Your task to perform on an android device: read, delete, or share a saved page in the chrome app Image 0: 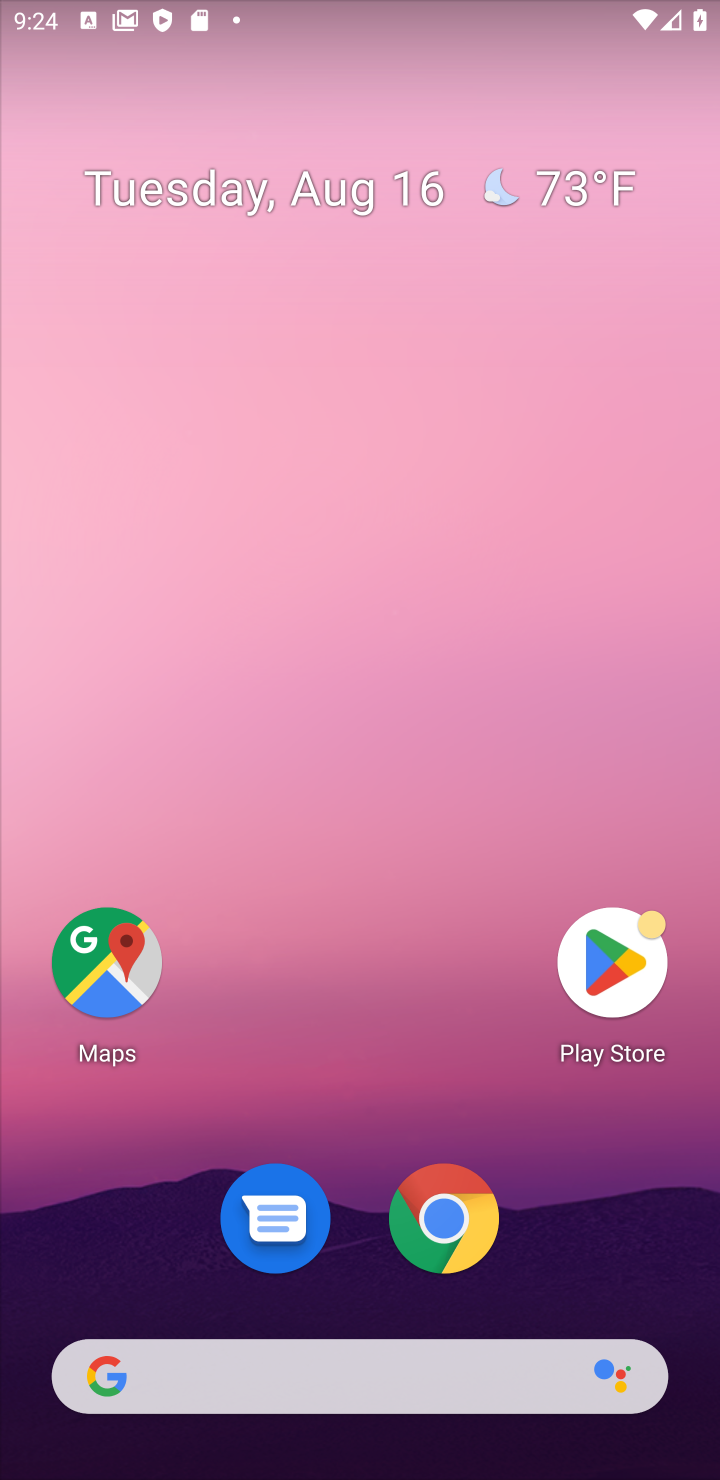
Step 0: click (431, 1229)
Your task to perform on an android device: read, delete, or share a saved page in the chrome app Image 1: 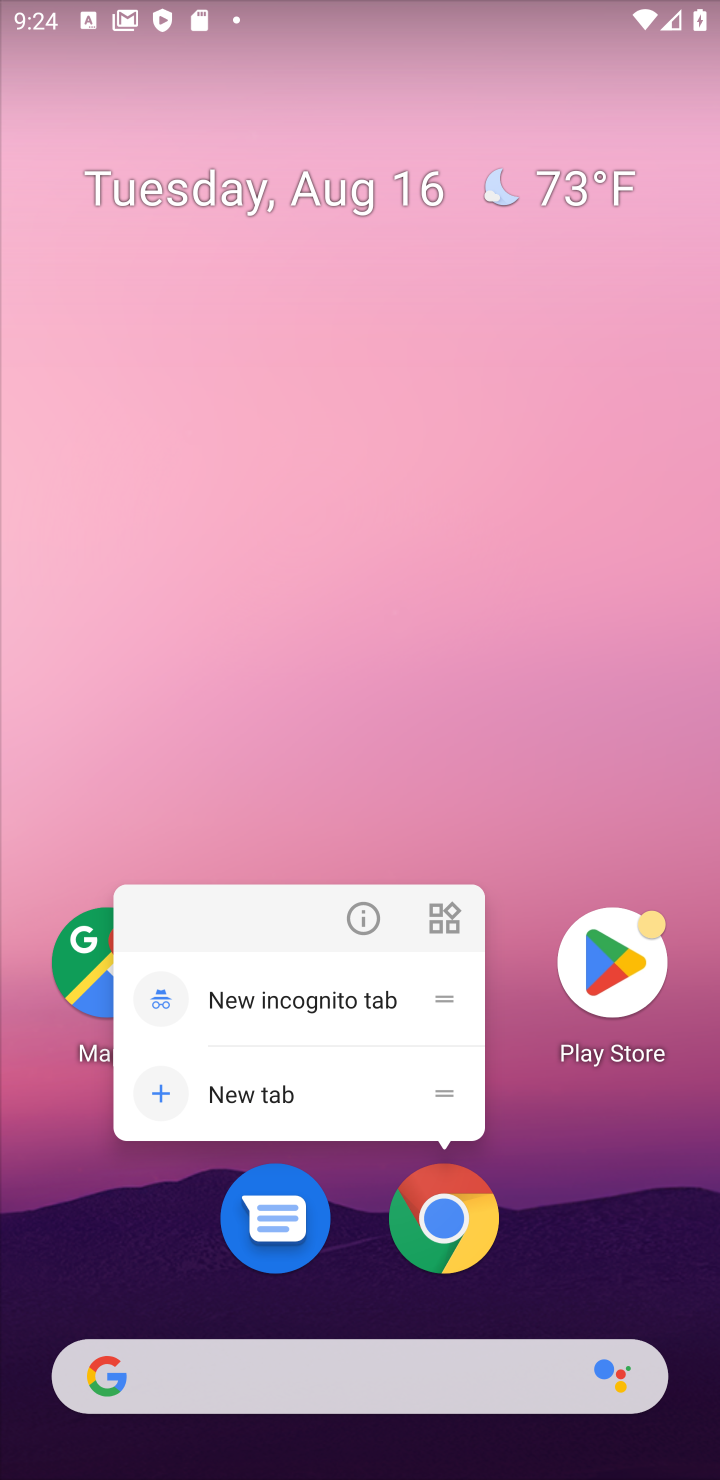
Step 1: click (448, 1213)
Your task to perform on an android device: read, delete, or share a saved page in the chrome app Image 2: 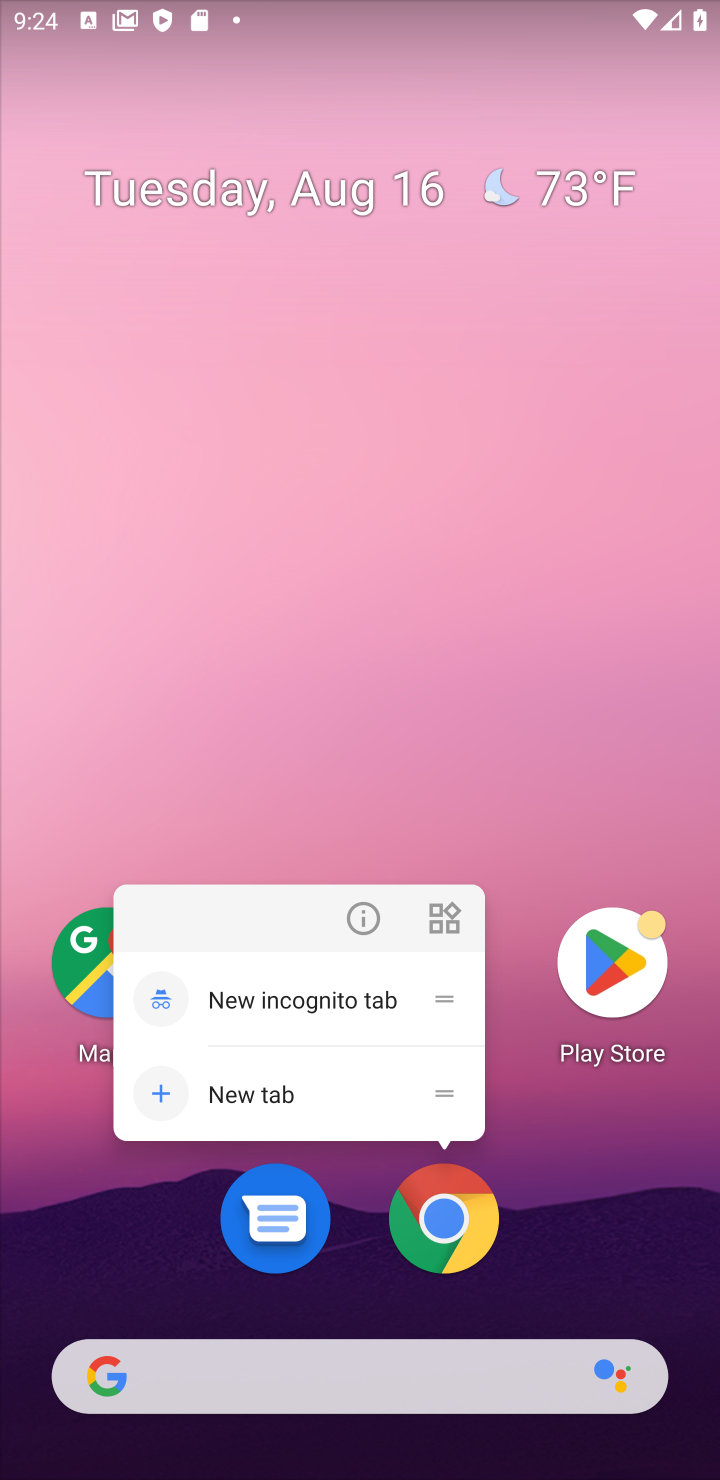
Step 2: click (448, 1213)
Your task to perform on an android device: read, delete, or share a saved page in the chrome app Image 3: 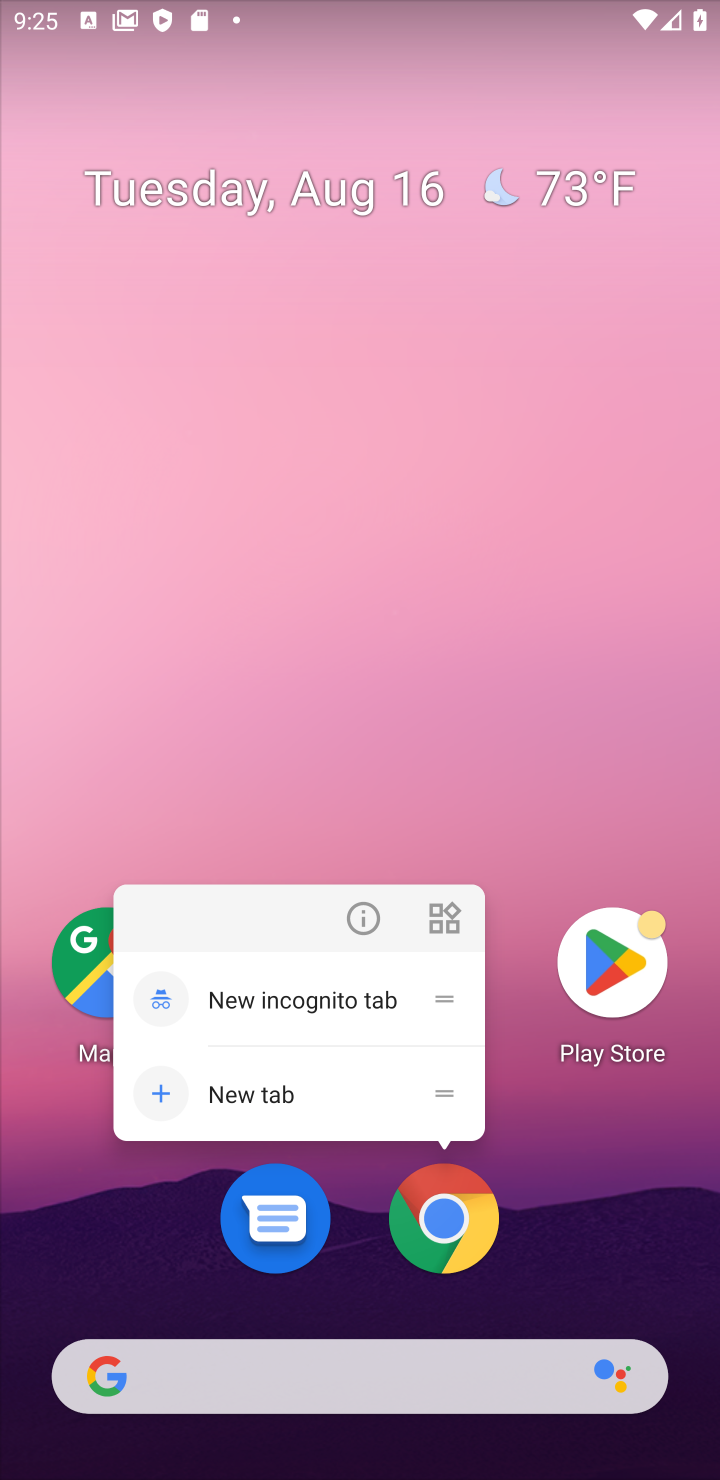
Step 3: click (448, 1213)
Your task to perform on an android device: read, delete, or share a saved page in the chrome app Image 4: 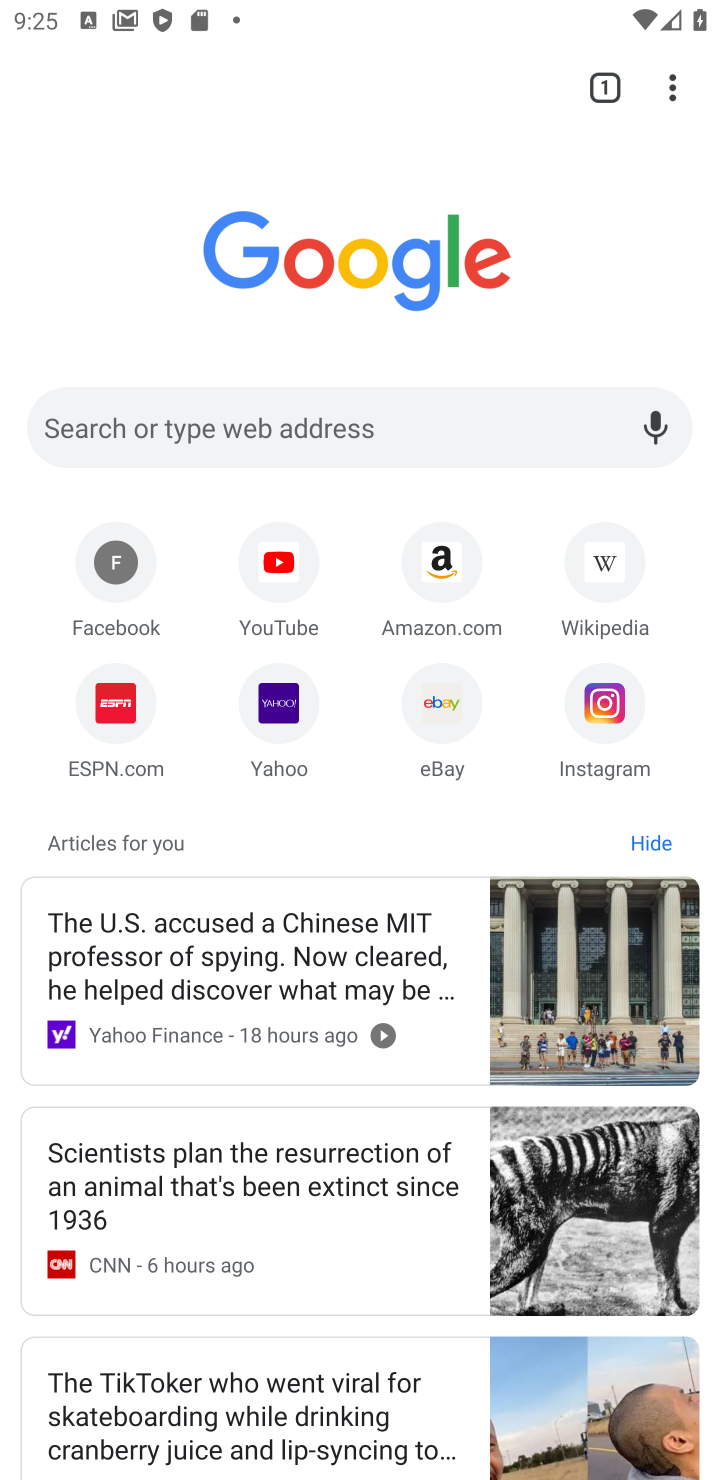
Step 4: click (676, 85)
Your task to perform on an android device: read, delete, or share a saved page in the chrome app Image 5: 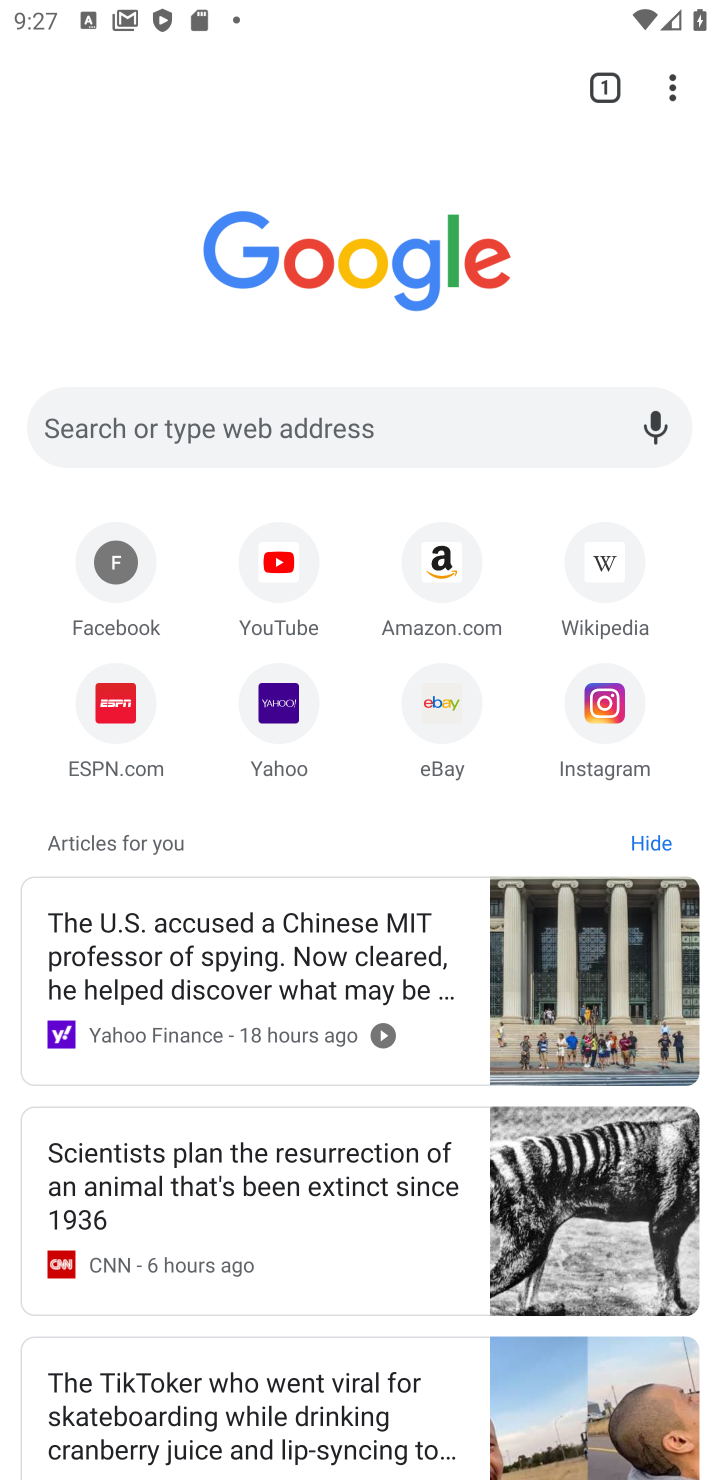
Step 5: click (686, 75)
Your task to perform on an android device: read, delete, or share a saved page in the chrome app Image 6: 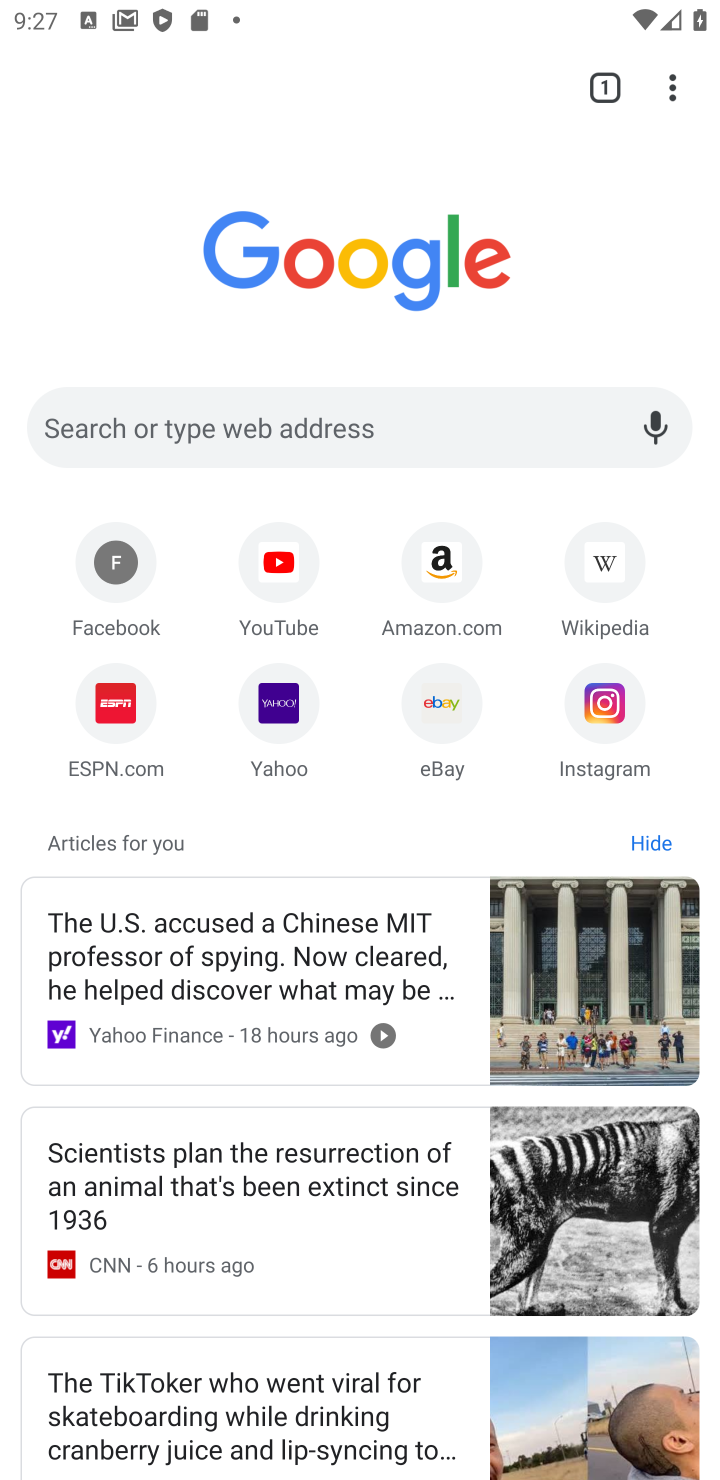
Step 6: click (682, 84)
Your task to perform on an android device: read, delete, or share a saved page in the chrome app Image 7: 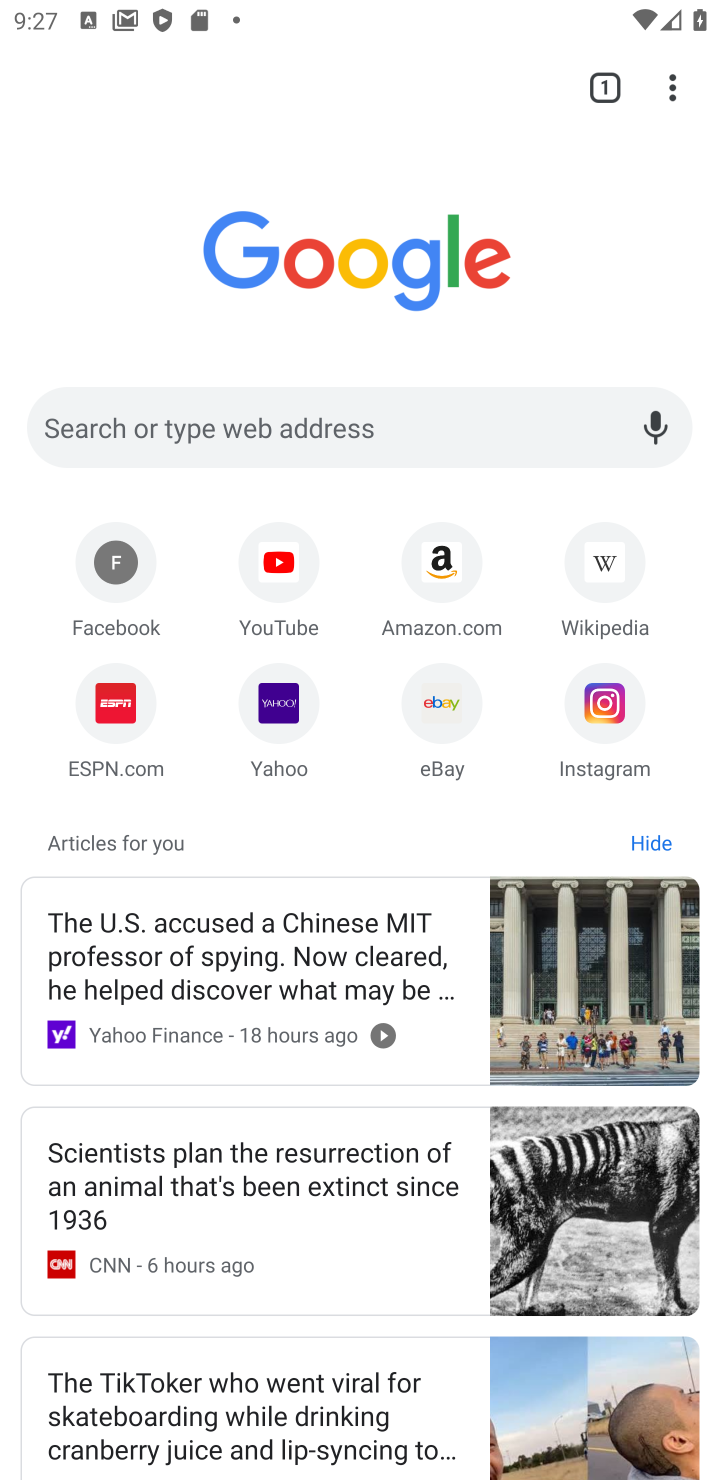
Step 7: click (682, 84)
Your task to perform on an android device: read, delete, or share a saved page in the chrome app Image 8: 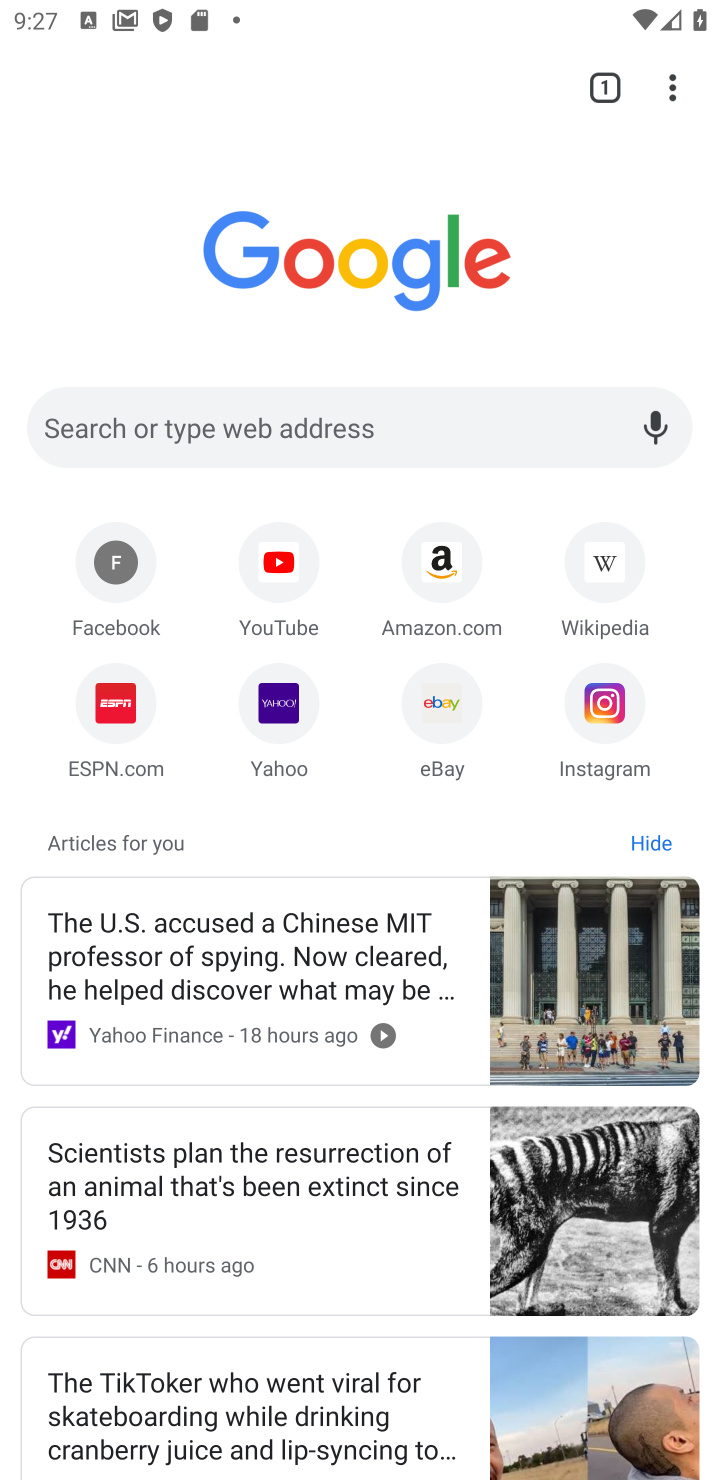
Step 8: click (682, 84)
Your task to perform on an android device: read, delete, or share a saved page in the chrome app Image 9: 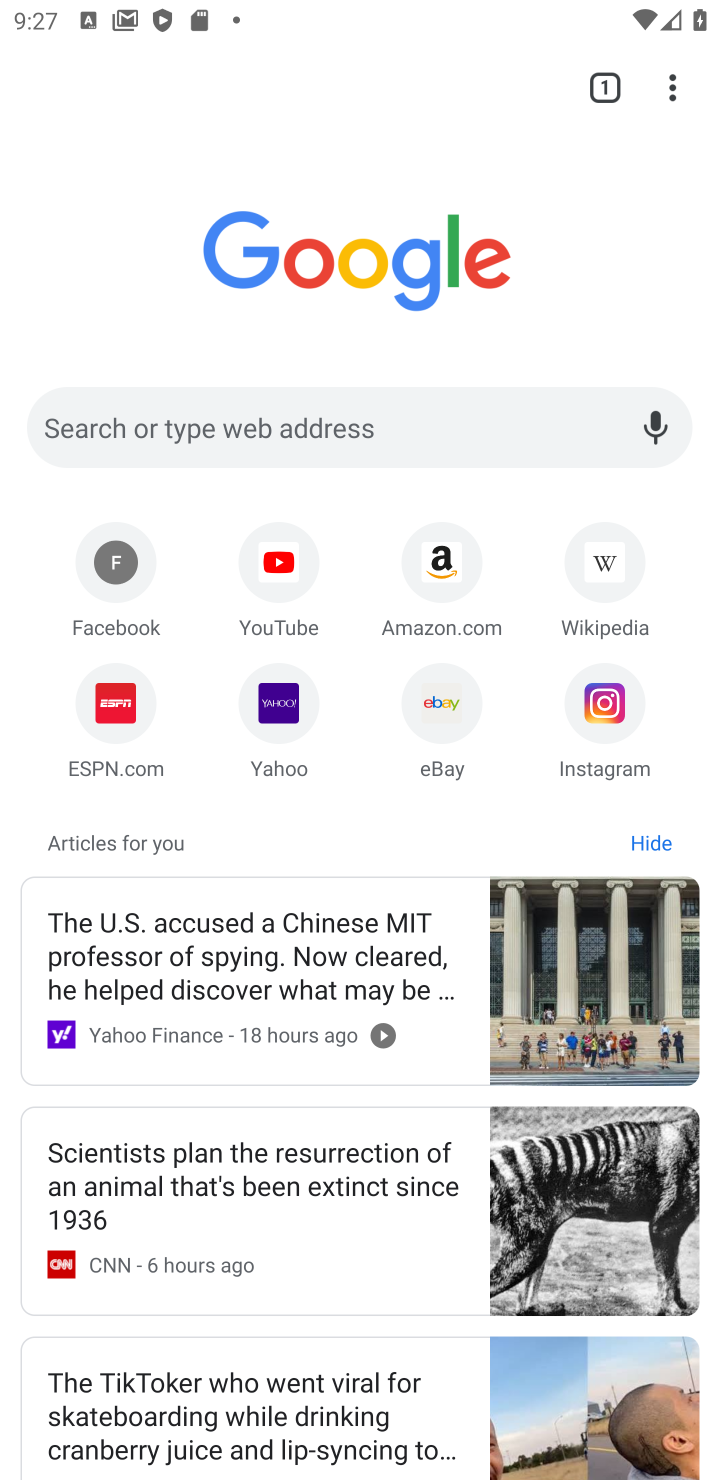
Step 9: click (685, 73)
Your task to perform on an android device: read, delete, or share a saved page in the chrome app Image 10: 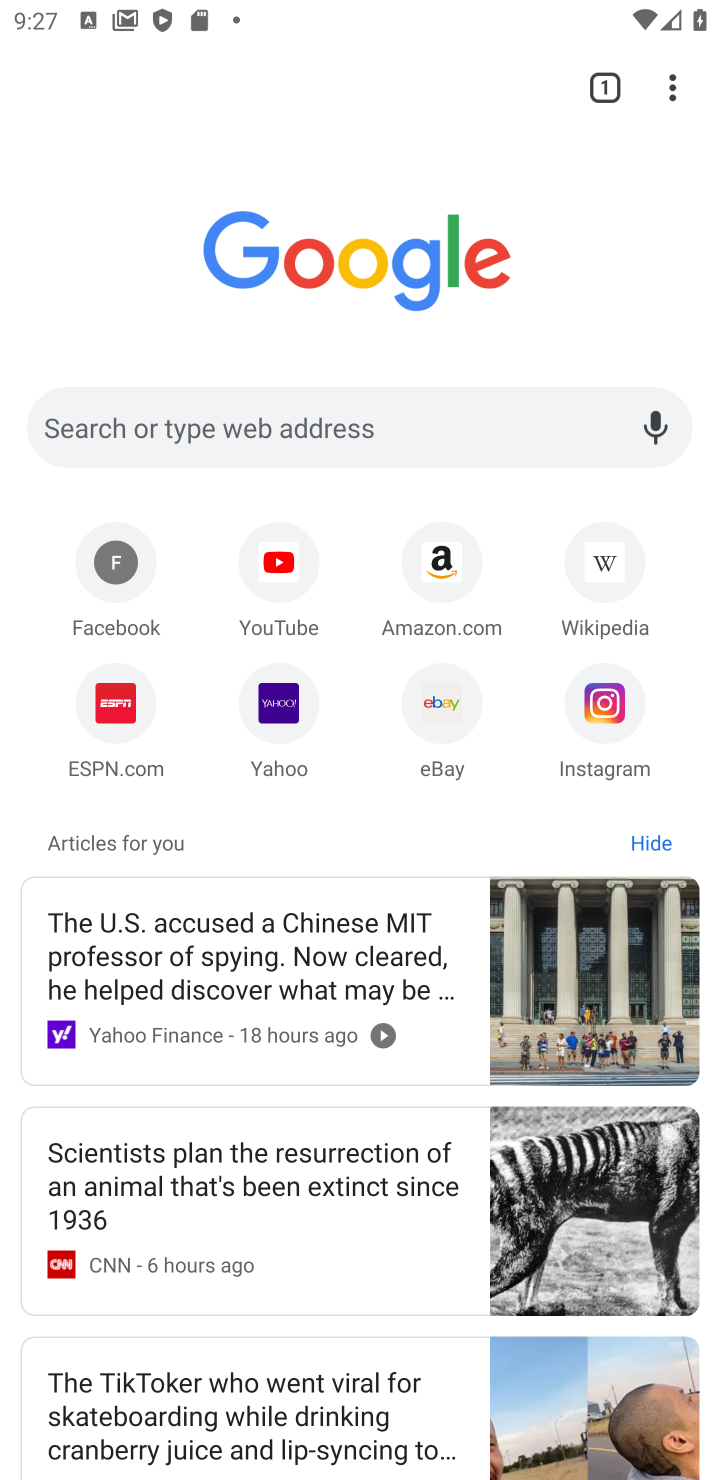
Step 10: click (679, 82)
Your task to perform on an android device: read, delete, or share a saved page in the chrome app Image 11: 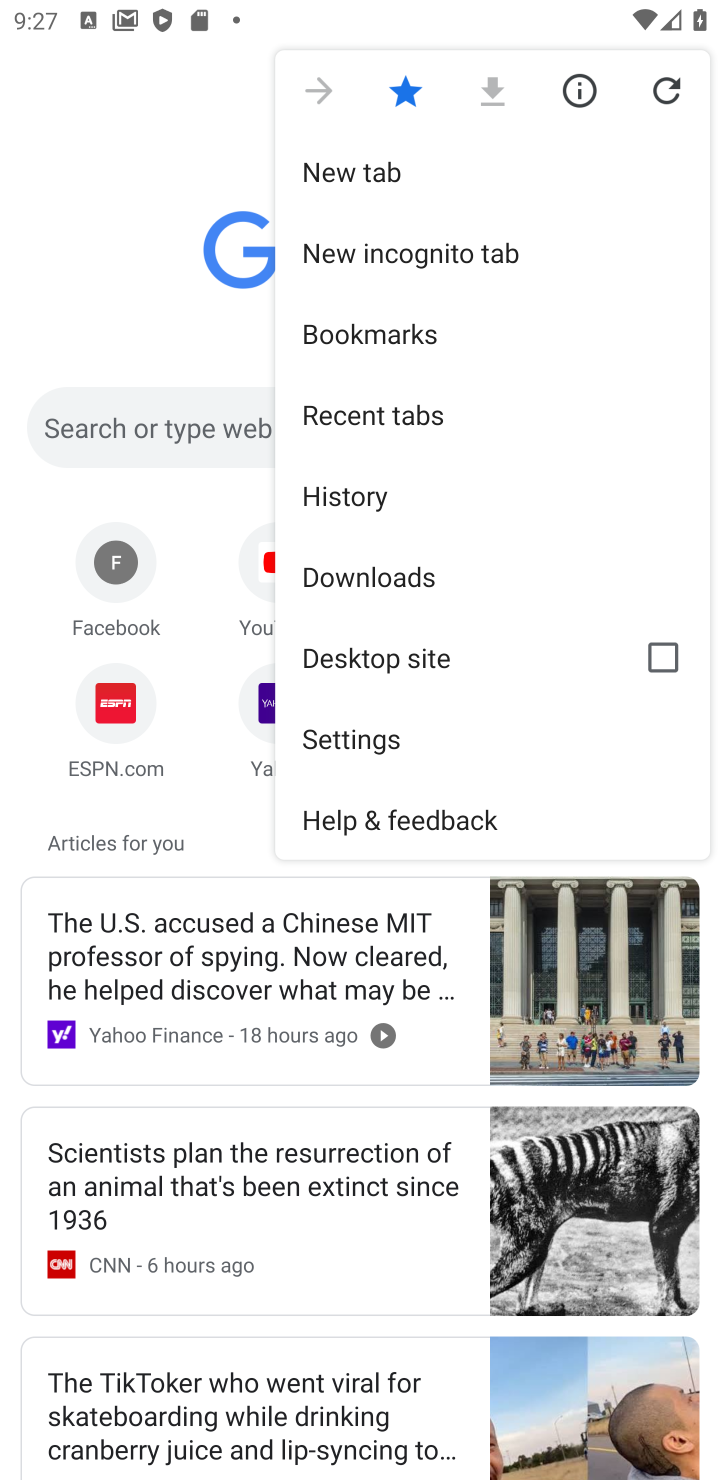
Step 11: click (434, 586)
Your task to perform on an android device: read, delete, or share a saved page in the chrome app Image 12: 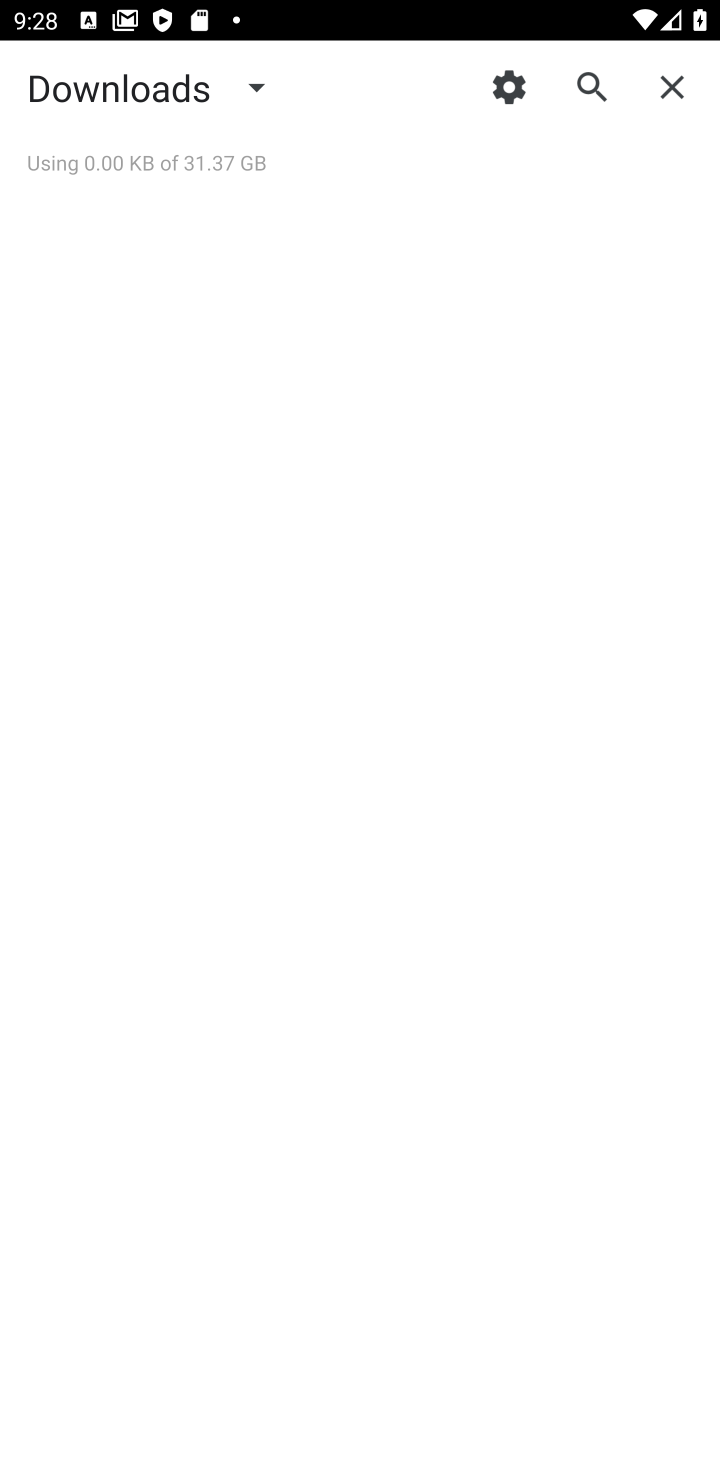
Step 12: task complete